Your task to perform on an android device: change notifications settings Image 0: 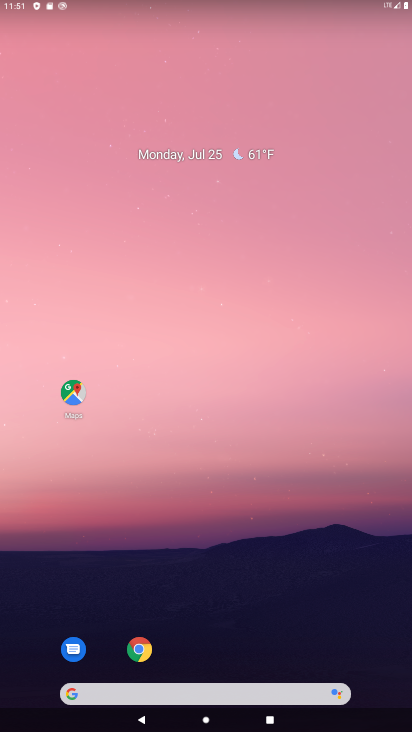
Step 0: drag from (203, 659) to (200, 73)
Your task to perform on an android device: change notifications settings Image 1: 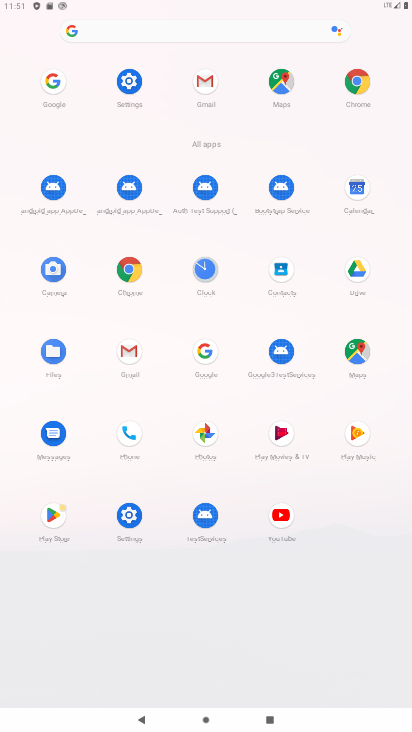
Step 1: click (135, 89)
Your task to perform on an android device: change notifications settings Image 2: 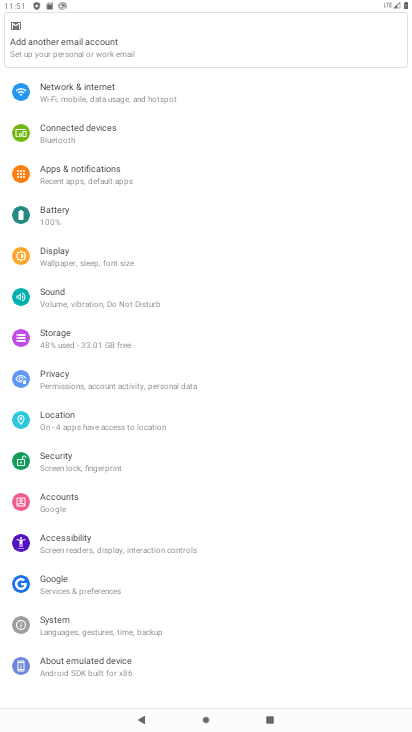
Step 2: click (75, 176)
Your task to perform on an android device: change notifications settings Image 3: 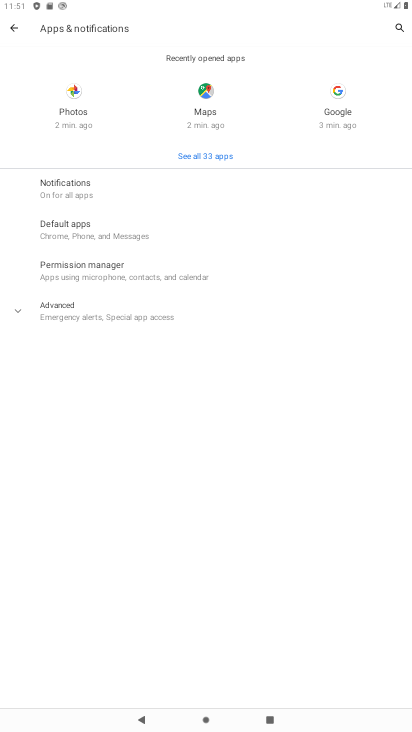
Step 3: click (79, 180)
Your task to perform on an android device: change notifications settings Image 4: 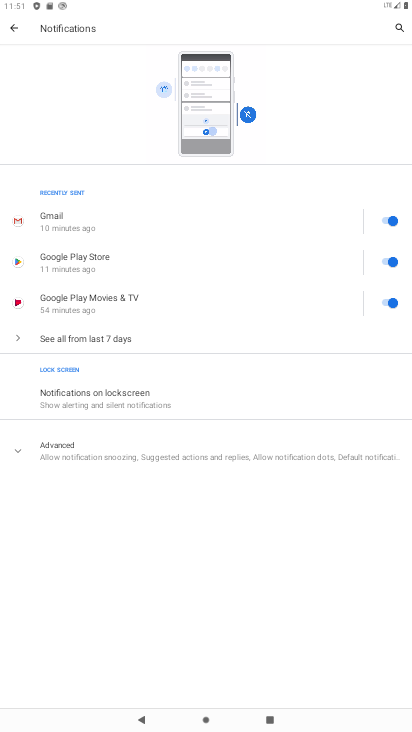
Step 4: task complete